Your task to perform on an android device: turn on translation in the chrome app Image 0: 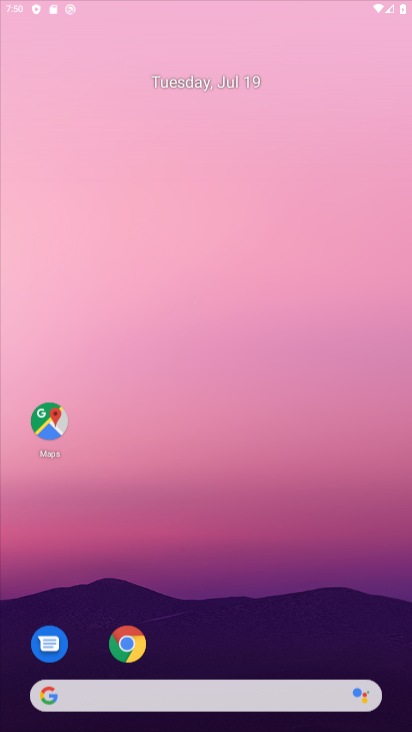
Step 0: drag from (249, 616) to (209, 190)
Your task to perform on an android device: turn on translation in the chrome app Image 1: 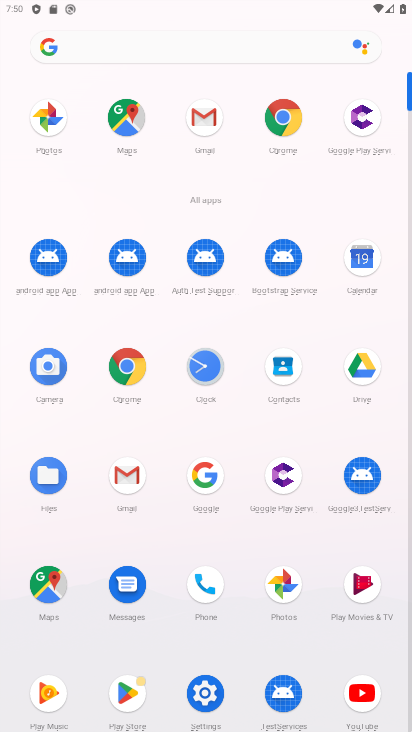
Step 1: click (280, 120)
Your task to perform on an android device: turn on translation in the chrome app Image 2: 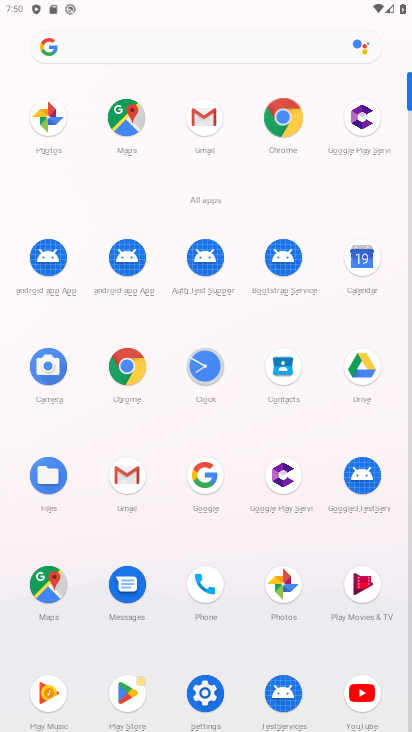
Step 2: click (280, 120)
Your task to perform on an android device: turn on translation in the chrome app Image 3: 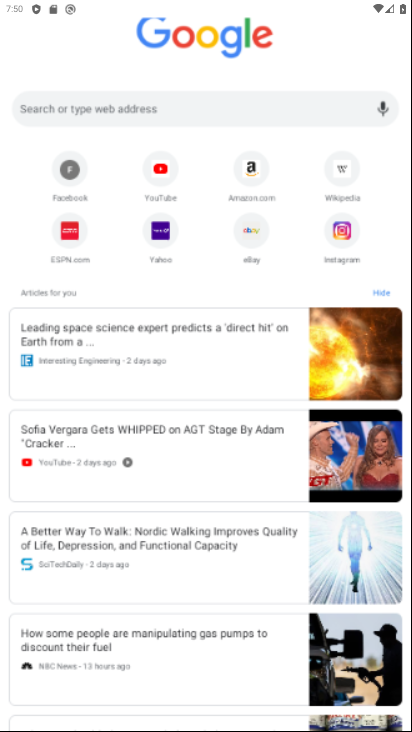
Step 3: click (280, 120)
Your task to perform on an android device: turn on translation in the chrome app Image 4: 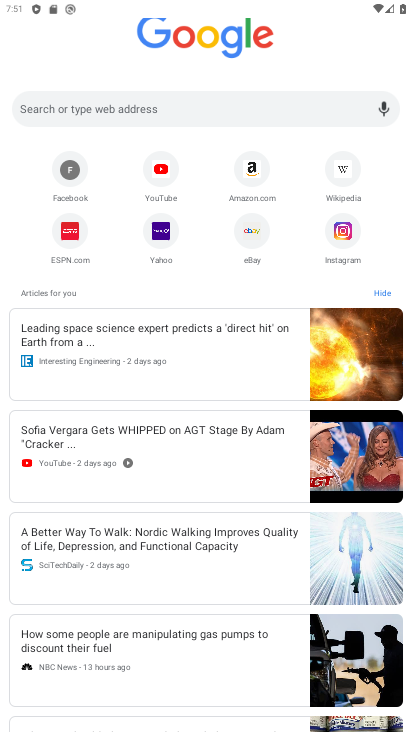
Step 4: drag from (393, 47) to (343, 337)
Your task to perform on an android device: turn on translation in the chrome app Image 5: 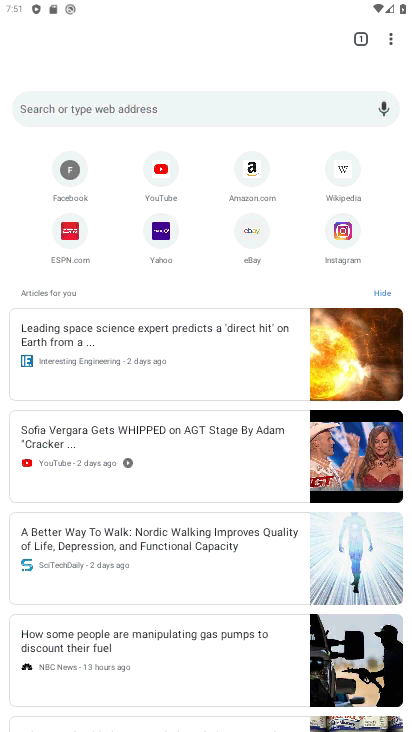
Step 5: drag from (383, 46) to (337, 346)
Your task to perform on an android device: turn on translation in the chrome app Image 6: 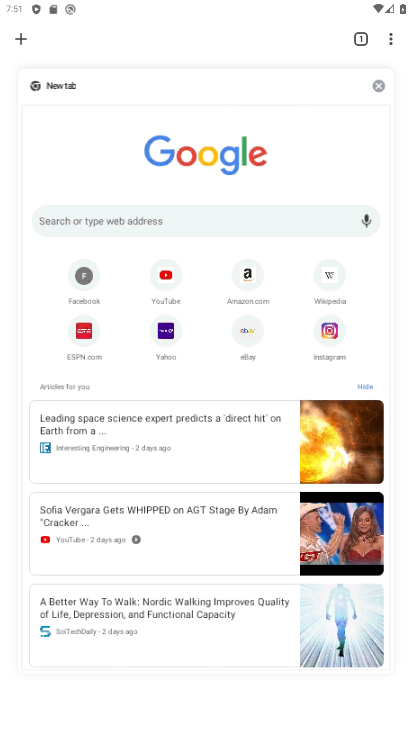
Step 6: click (392, 30)
Your task to perform on an android device: turn on translation in the chrome app Image 7: 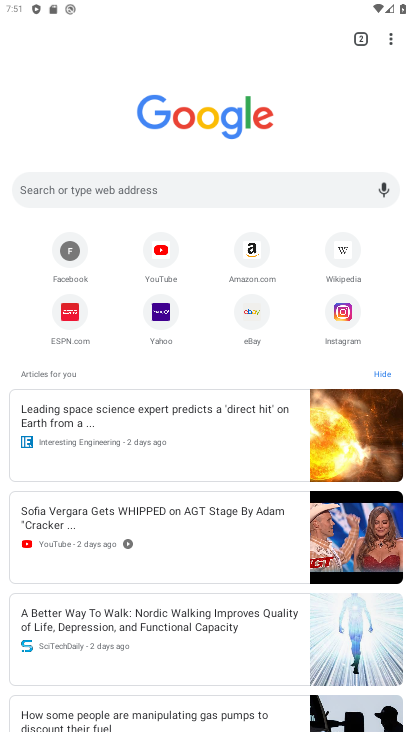
Step 7: click (388, 43)
Your task to perform on an android device: turn on translation in the chrome app Image 8: 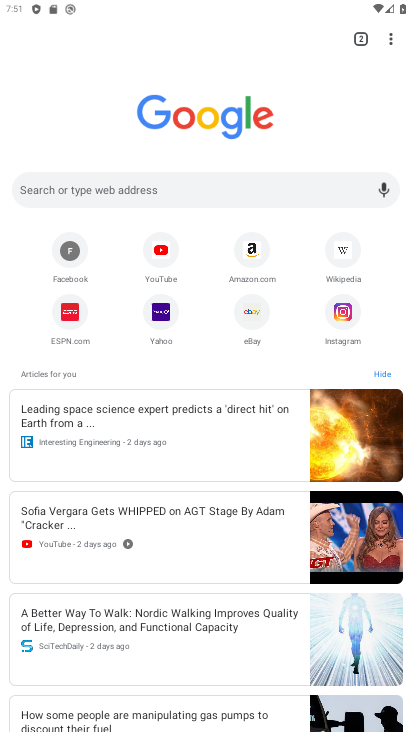
Step 8: click (388, 43)
Your task to perform on an android device: turn on translation in the chrome app Image 9: 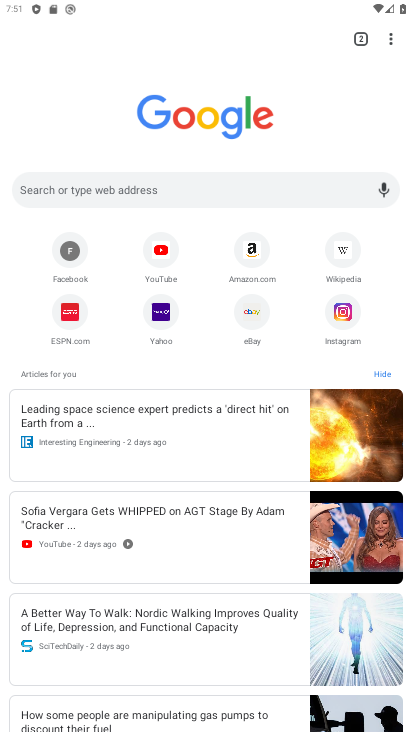
Step 9: click (388, 43)
Your task to perform on an android device: turn on translation in the chrome app Image 10: 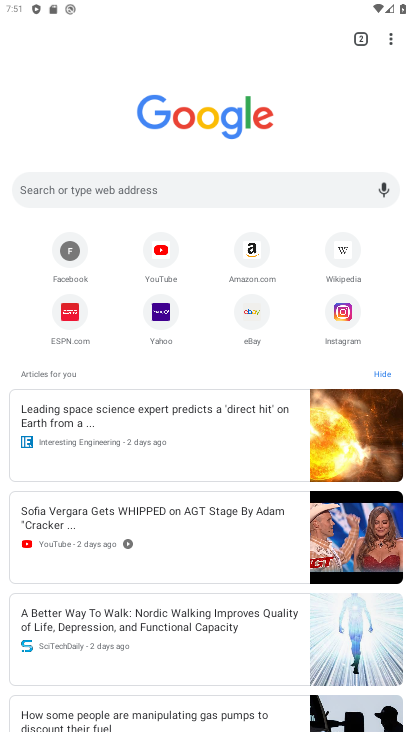
Step 10: click (388, 43)
Your task to perform on an android device: turn on translation in the chrome app Image 11: 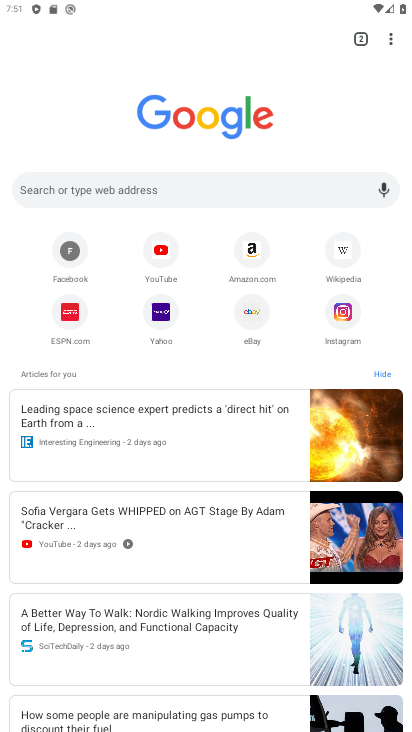
Step 11: drag from (392, 34) to (251, 331)
Your task to perform on an android device: turn on translation in the chrome app Image 12: 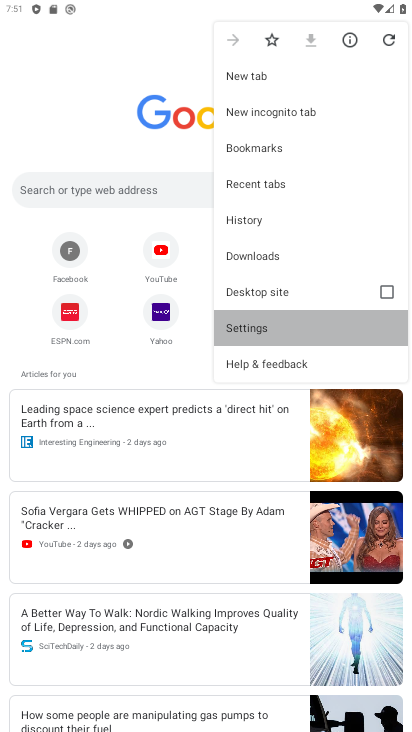
Step 12: click (250, 327)
Your task to perform on an android device: turn on translation in the chrome app Image 13: 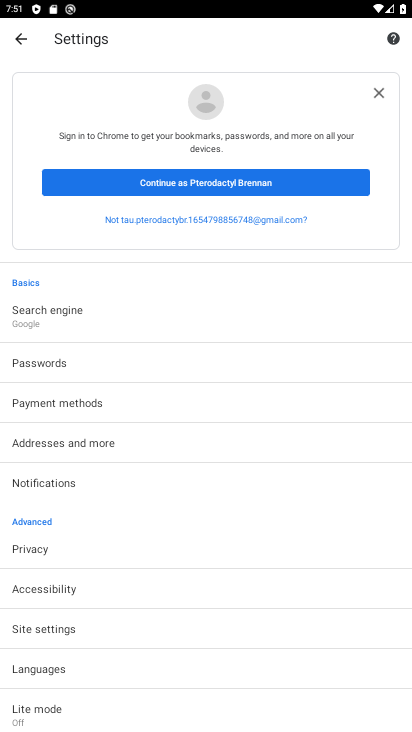
Step 13: drag from (157, 181) to (183, 275)
Your task to perform on an android device: turn on translation in the chrome app Image 14: 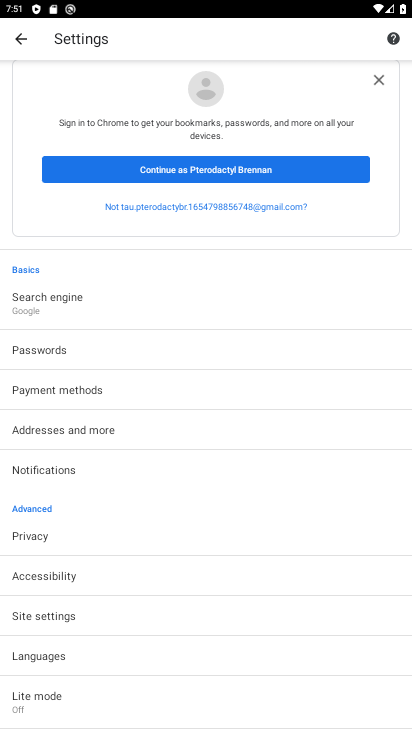
Step 14: click (57, 654)
Your task to perform on an android device: turn on translation in the chrome app Image 15: 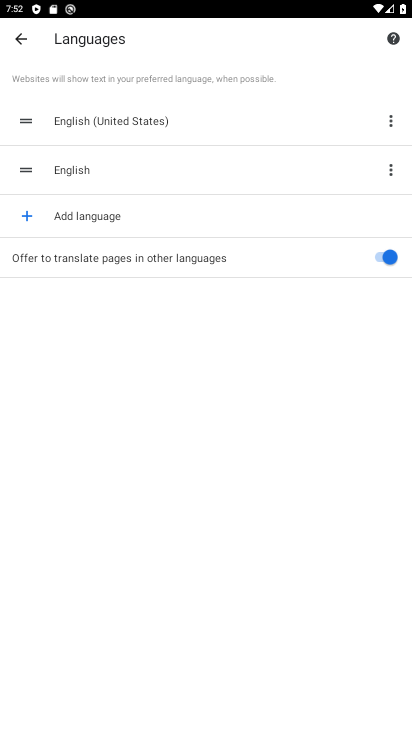
Step 15: task complete